Your task to perform on an android device: add a contact Image 0: 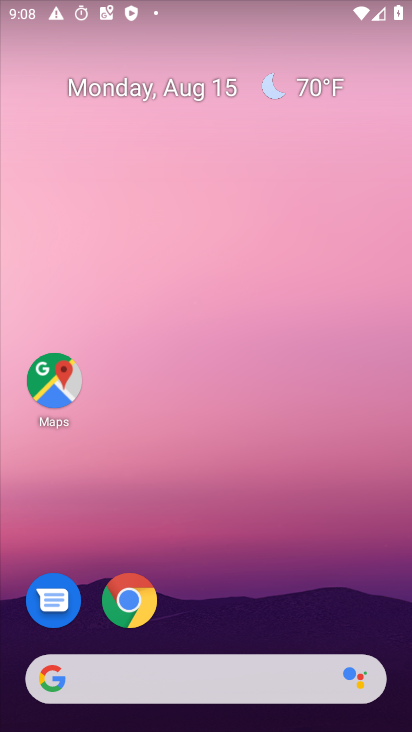
Step 0: drag from (219, 528) to (172, 86)
Your task to perform on an android device: add a contact Image 1: 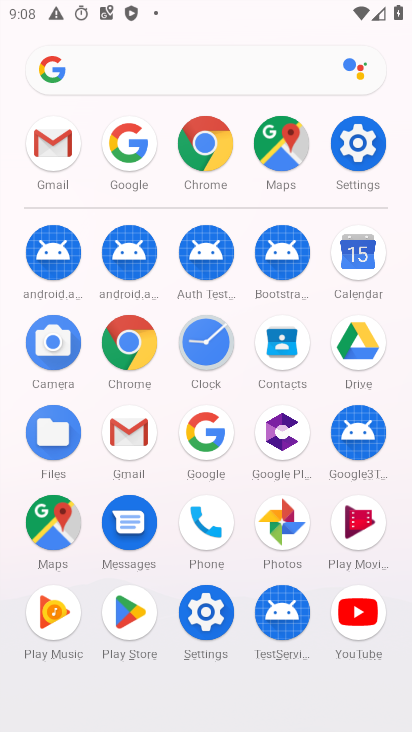
Step 1: click (278, 349)
Your task to perform on an android device: add a contact Image 2: 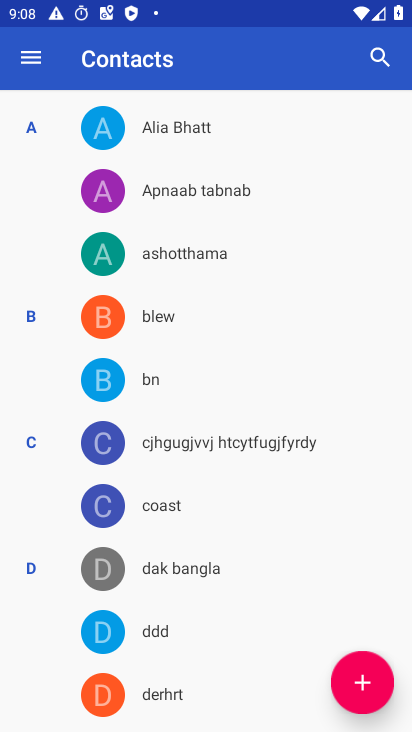
Step 2: click (361, 687)
Your task to perform on an android device: add a contact Image 3: 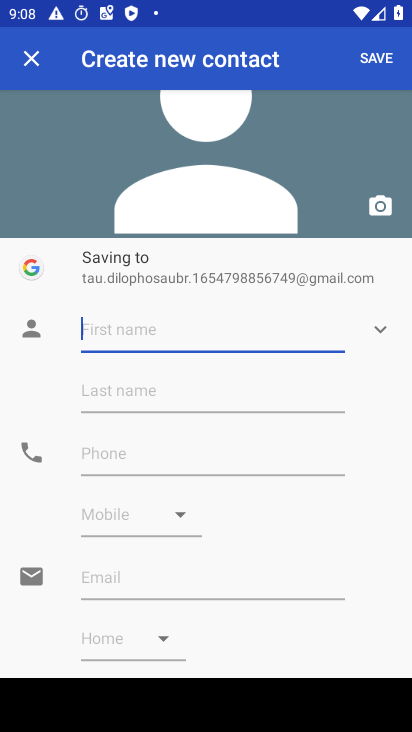
Step 3: type "iuiuiu"
Your task to perform on an android device: add a contact Image 4: 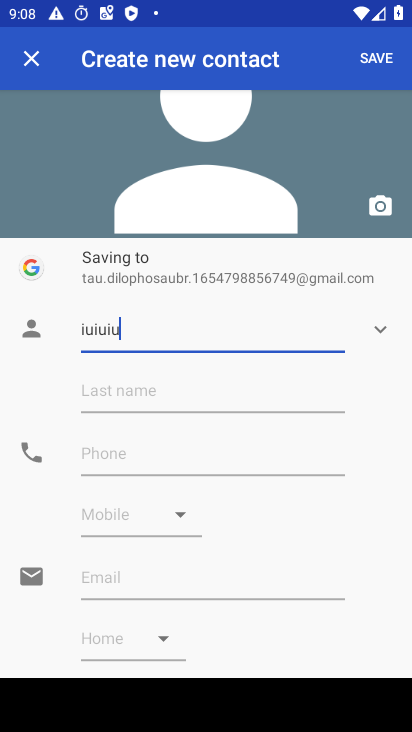
Step 4: click (119, 448)
Your task to perform on an android device: add a contact Image 5: 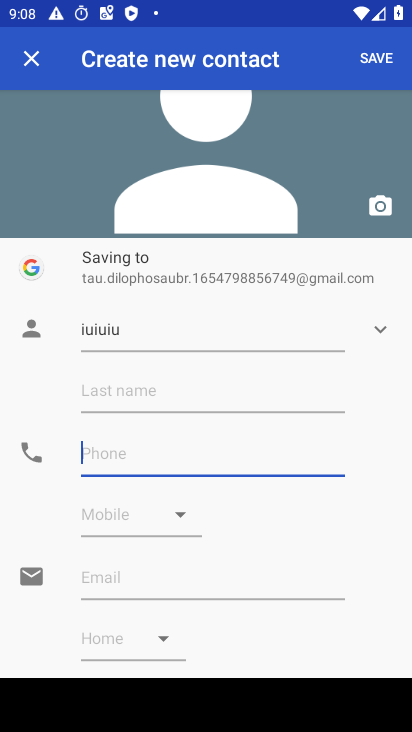
Step 5: type "nbnbn"
Your task to perform on an android device: add a contact Image 6: 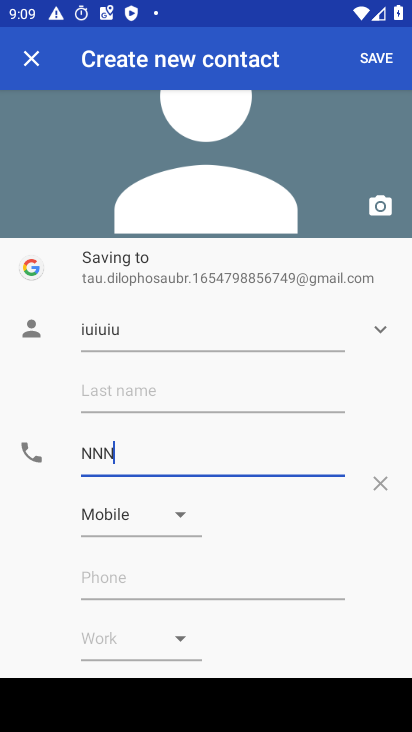
Step 6: click (381, 56)
Your task to perform on an android device: add a contact Image 7: 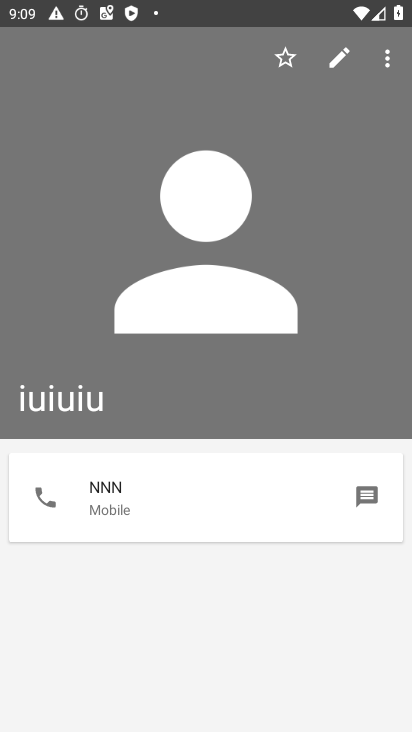
Step 7: task complete